Your task to perform on an android device: move an email to a new category in the gmail app Image 0: 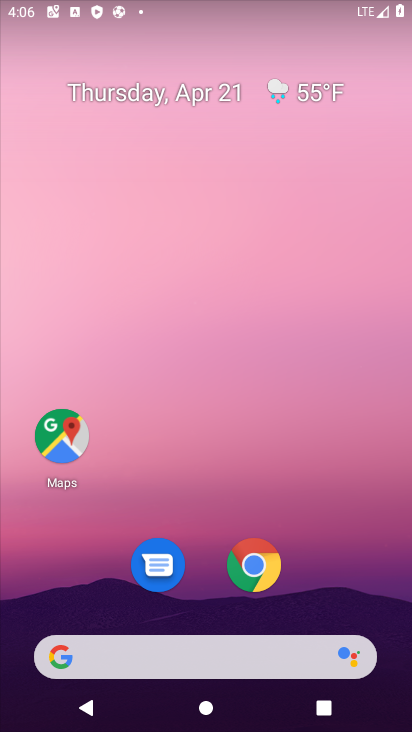
Step 0: drag from (354, 553) to (323, 102)
Your task to perform on an android device: move an email to a new category in the gmail app Image 1: 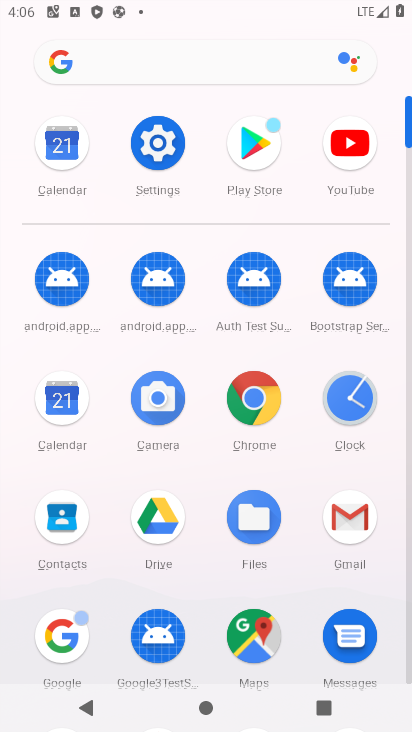
Step 1: click (358, 515)
Your task to perform on an android device: move an email to a new category in the gmail app Image 2: 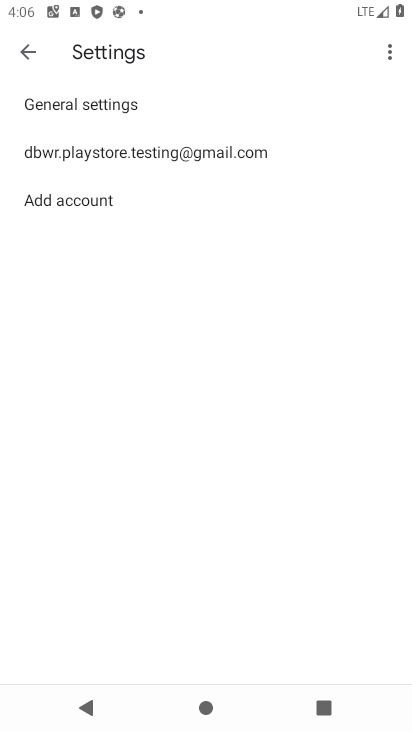
Step 2: click (28, 50)
Your task to perform on an android device: move an email to a new category in the gmail app Image 3: 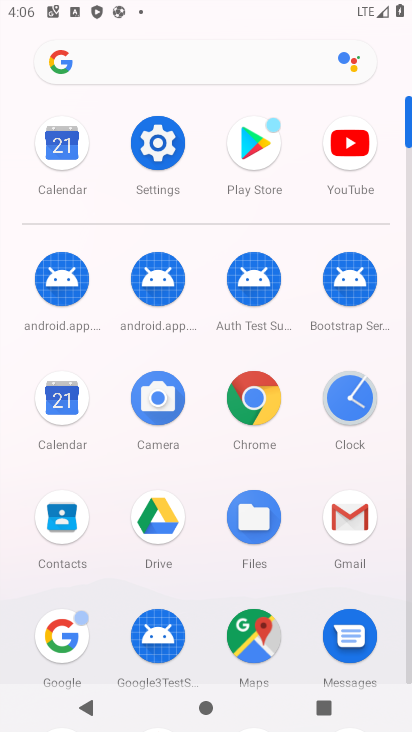
Step 3: click (338, 523)
Your task to perform on an android device: move an email to a new category in the gmail app Image 4: 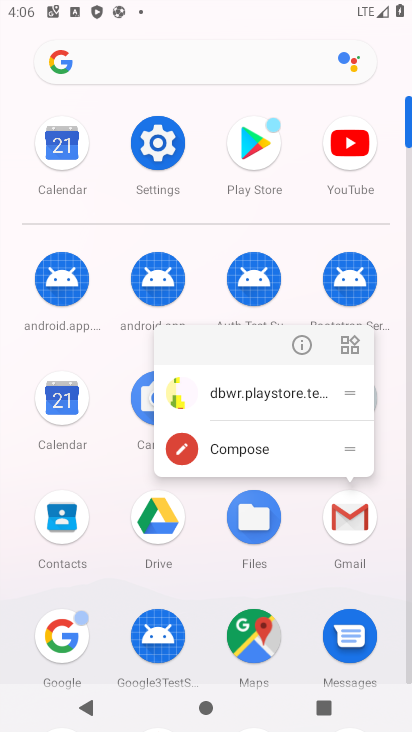
Step 4: click (346, 512)
Your task to perform on an android device: move an email to a new category in the gmail app Image 5: 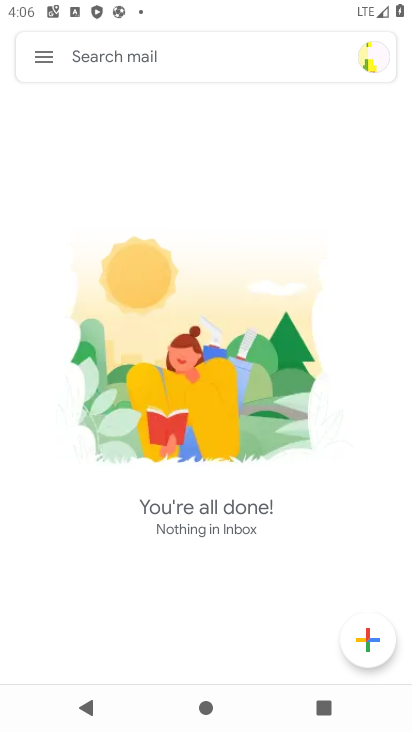
Step 5: click (44, 57)
Your task to perform on an android device: move an email to a new category in the gmail app Image 6: 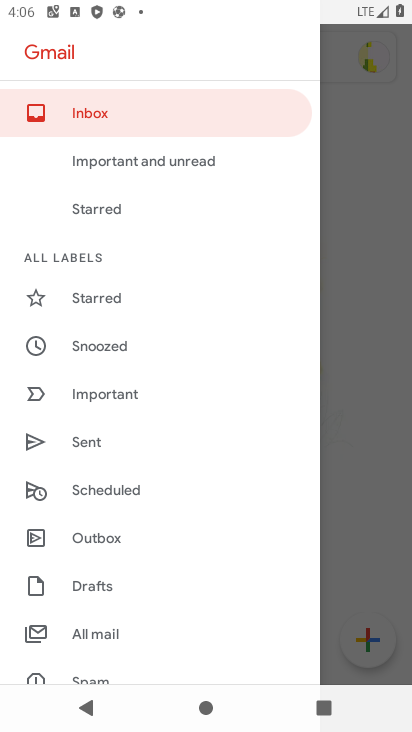
Step 6: click (142, 624)
Your task to perform on an android device: move an email to a new category in the gmail app Image 7: 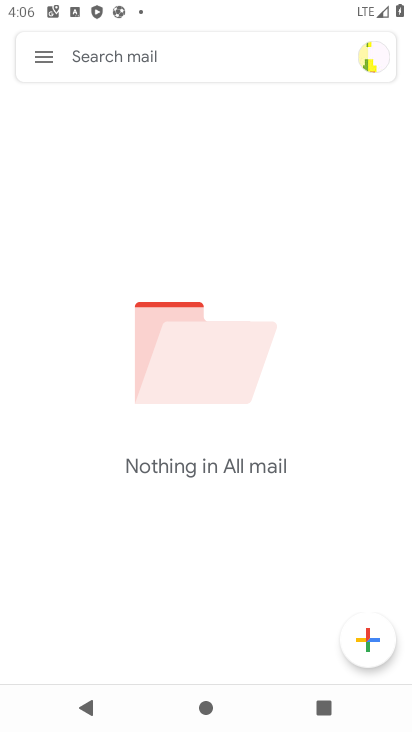
Step 7: task complete